Your task to perform on an android device: Open Google Maps Image 0: 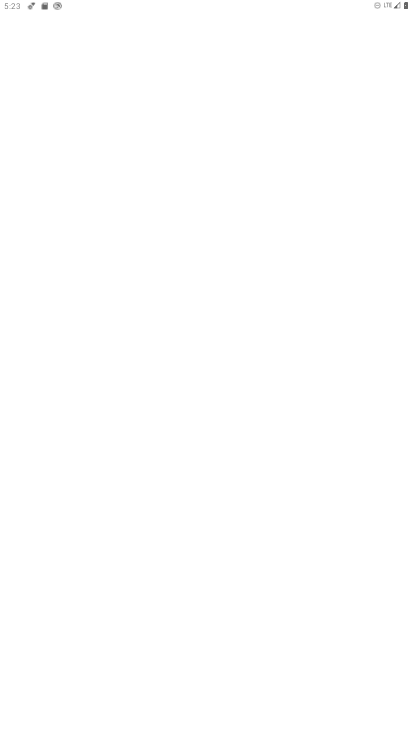
Step 0: press home button
Your task to perform on an android device: Open Google Maps Image 1: 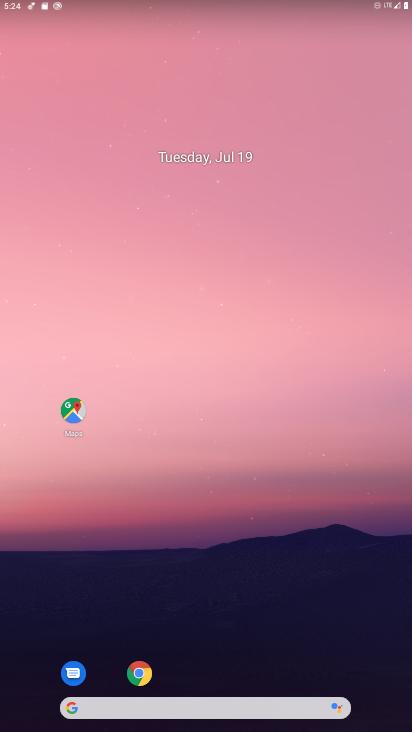
Step 1: click (71, 405)
Your task to perform on an android device: Open Google Maps Image 2: 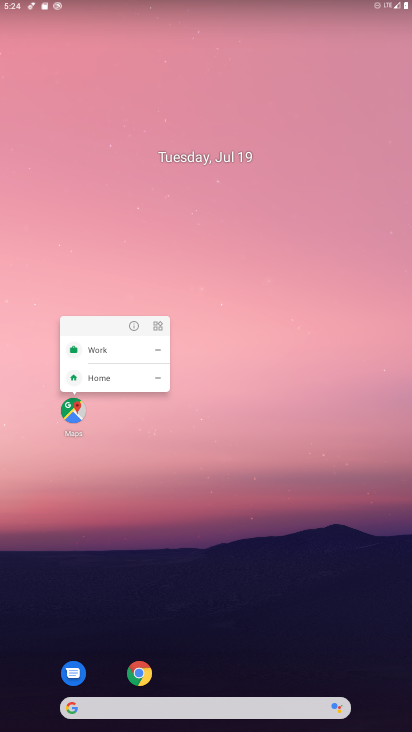
Step 2: click (67, 408)
Your task to perform on an android device: Open Google Maps Image 3: 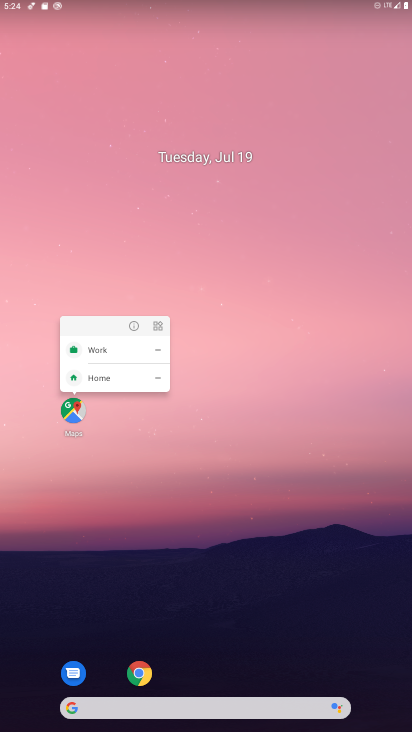
Step 3: click (69, 403)
Your task to perform on an android device: Open Google Maps Image 4: 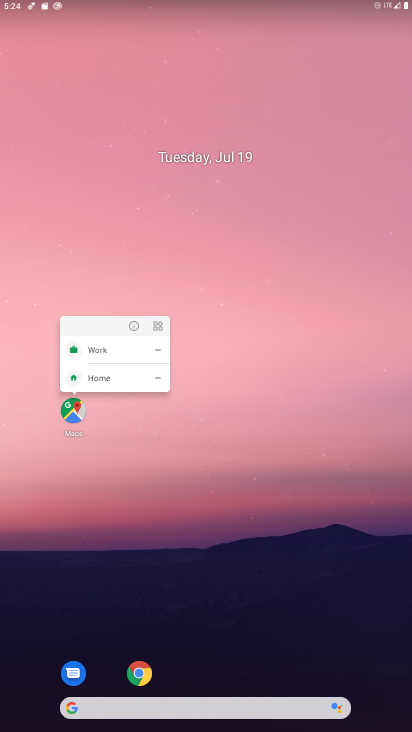
Step 4: click (71, 405)
Your task to perform on an android device: Open Google Maps Image 5: 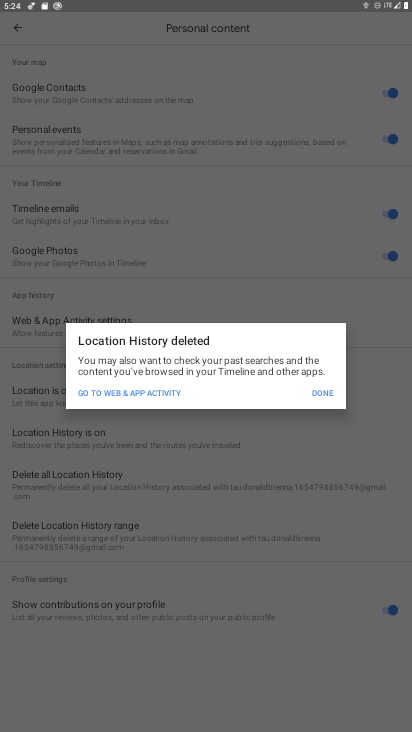
Step 5: click (320, 394)
Your task to perform on an android device: Open Google Maps Image 6: 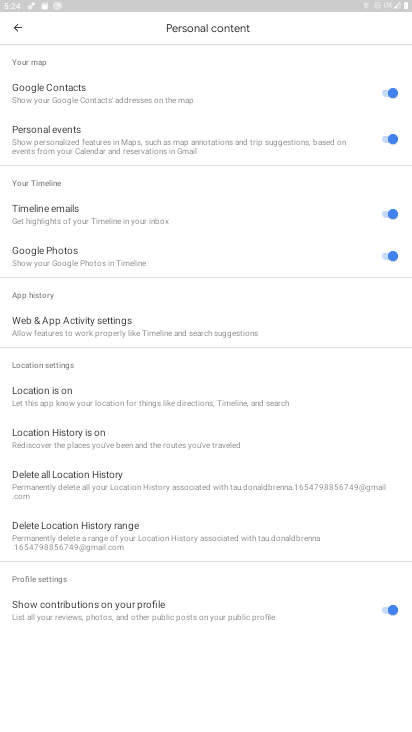
Step 6: click (17, 29)
Your task to perform on an android device: Open Google Maps Image 7: 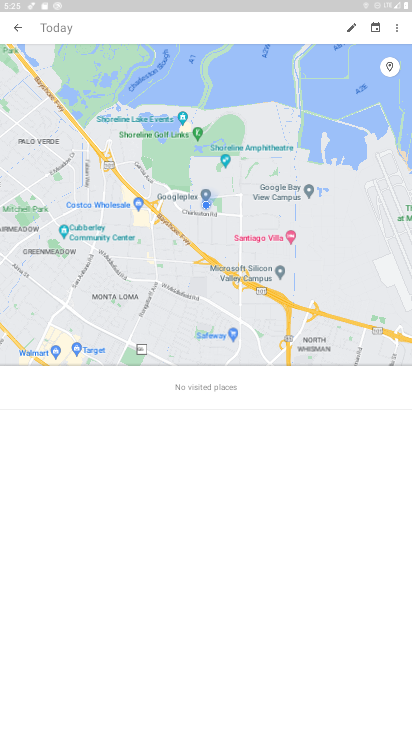
Step 7: click (17, 28)
Your task to perform on an android device: Open Google Maps Image 8: 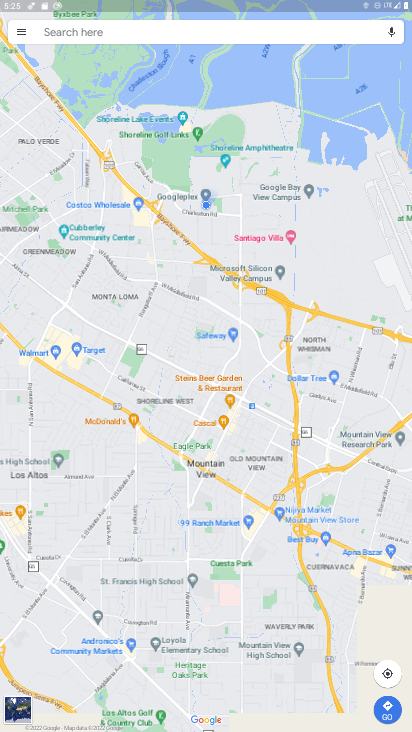
Step 8: task complete